Your task to perform on an android device: install app "Gmail" Image 0: 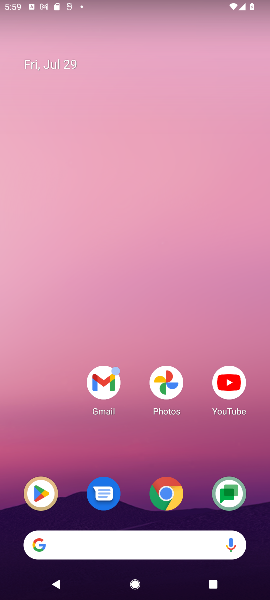
Step 0: drag from (152, 445) to (158, 168)
Your task to perform on an android device: install app "Gmail" Image 1: 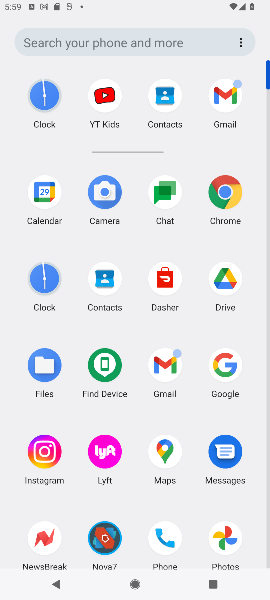
Step 1: drag from (141, 519) to (141, 196)
Your task to perform on an android device: install app "Gmail" Image 2: 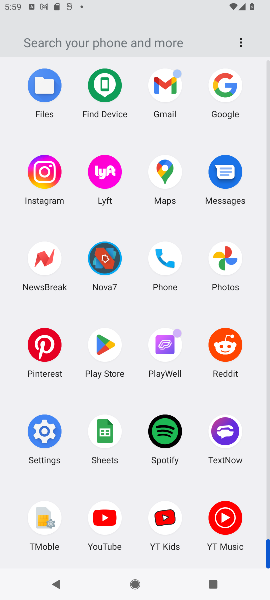
Step 2: click (102, 345)
Your task to perform on an android device: install app "Gmail" Image 3: 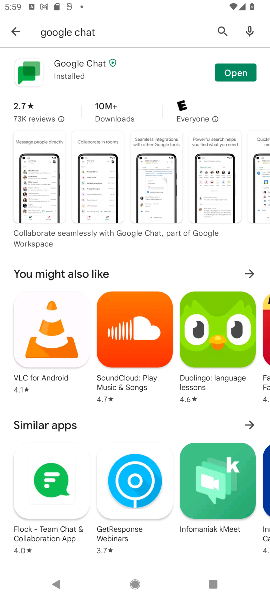
Step 3: click (222, 28)
Your task to perform on an android device: install app "Gmail" Image 4: 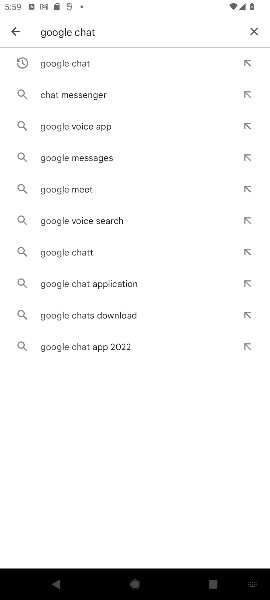
Step 4: click (250, 28)
Your task to perform on an android device: install app "Gmail" Image 5: 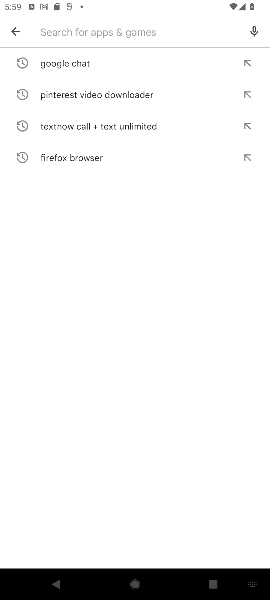
Step 5: type "Gmail"
Your task to perform on an android device: install app "Gmail" Image 6: 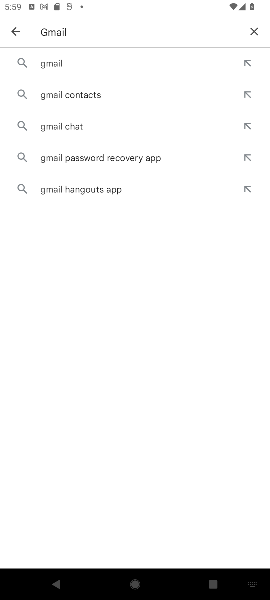
Step 6: click (50, 65)
Your task to perform on an android device: install app "Gmail" Image 7: 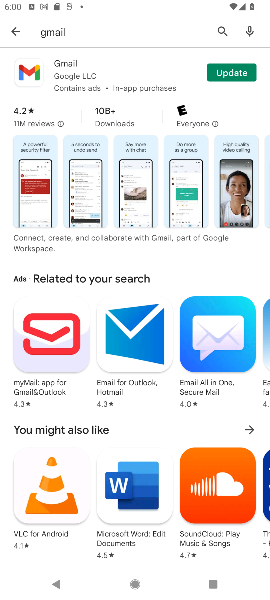
Step 7: task complete